Your task to perform on an android device: Go to sound settings Image 0: 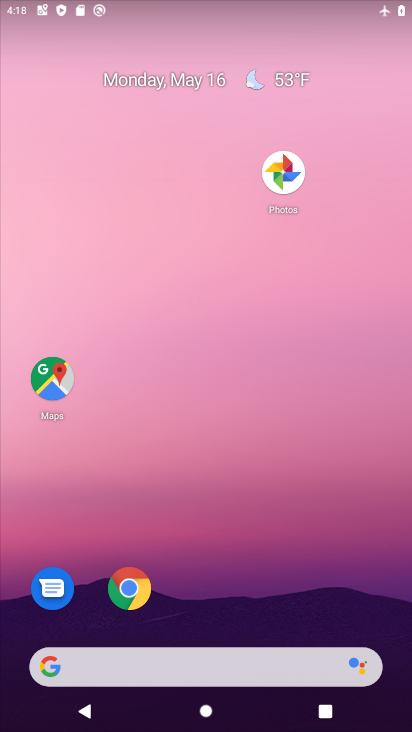
Step 0: drag from (147, 616) to (222, 31)
Your task to perform on an android device: Go to sound settings Image 1: 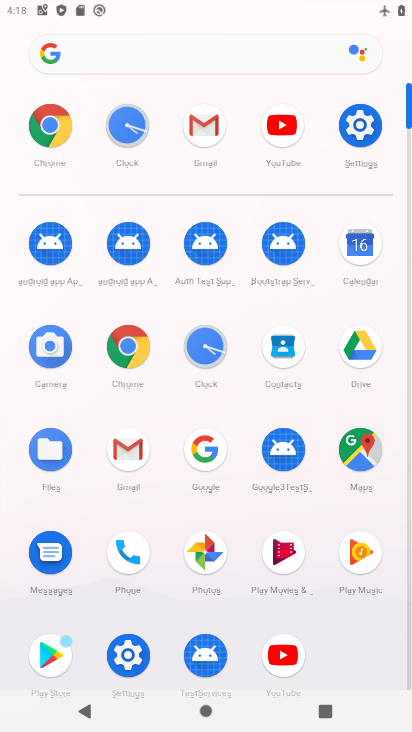
Step 1: click (368, 116)
Your task to perform on an android device: Go to sound settings Image 2: 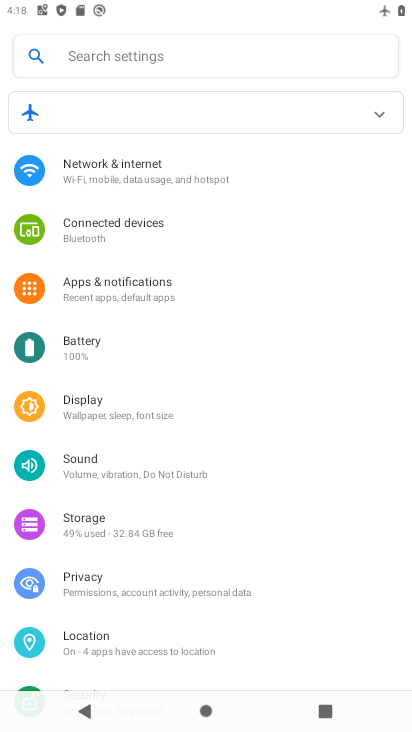
Step 2: click (120, 470)
Your task to perform on an android device: Go to sound settings Image 3: 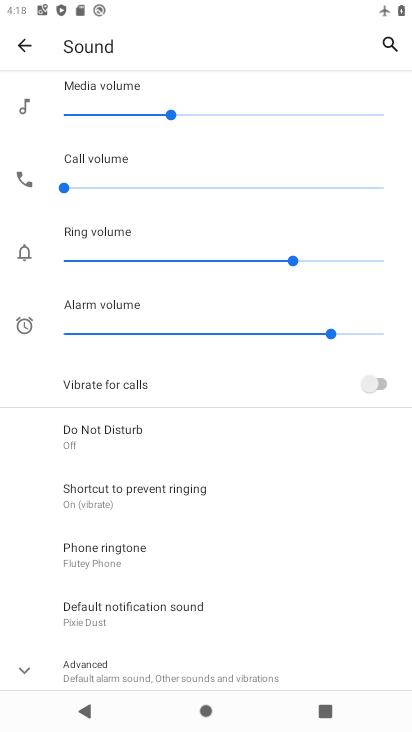
Step 3: task complete